Your task to perform on an android device: open app "Gmail" (install if not already installed) Image 0: 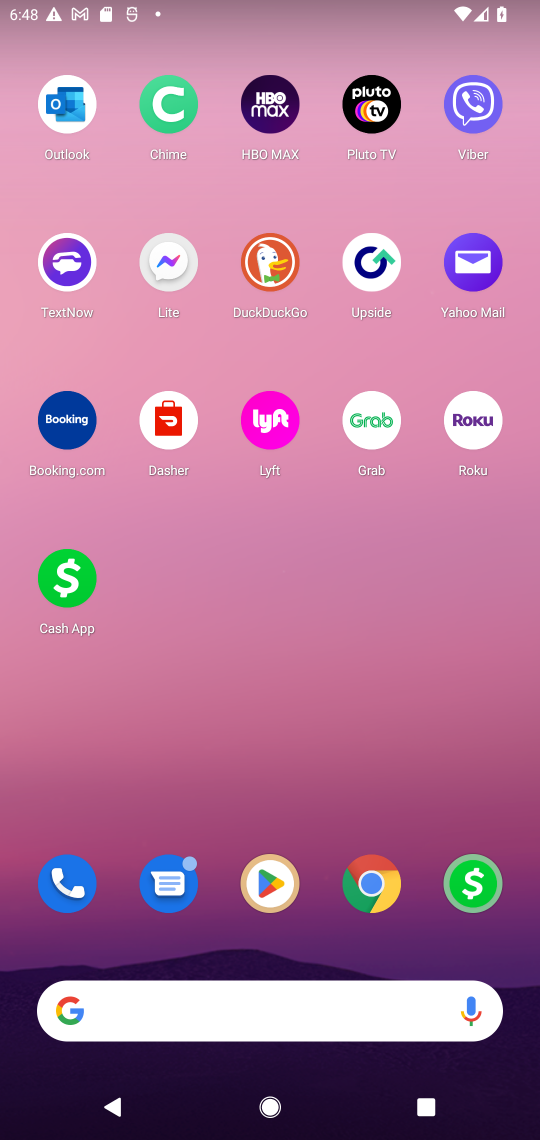
Step 0: click (293, 884)
Your task to perform on an android device: open app "Gmail" (install if not already installed) Image 1: 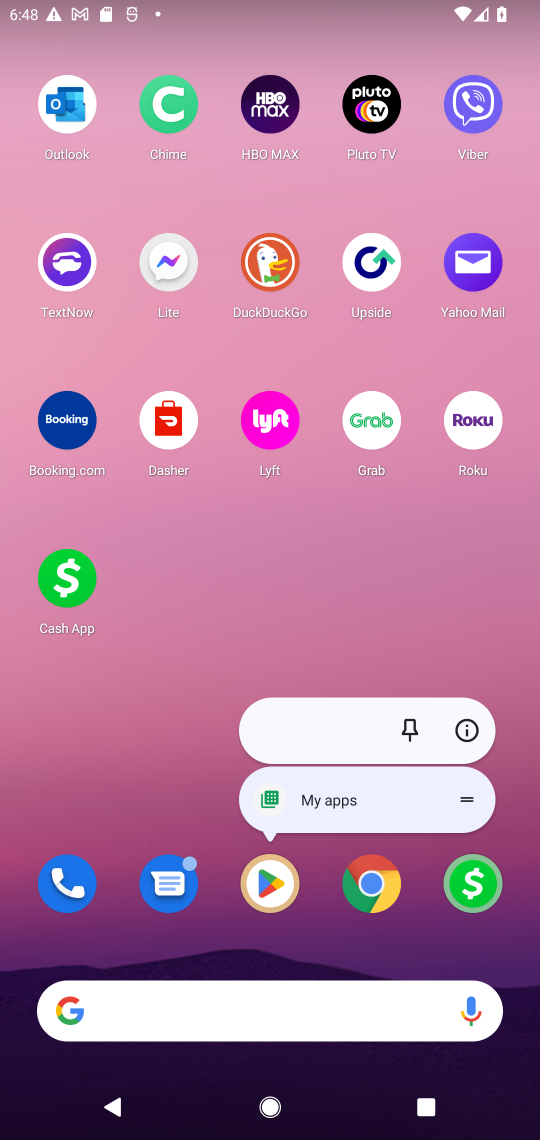
Step 1: click (266, 870)
Your task to perform on an android device: open app "Gmail" (install if not already installed) Image 2: 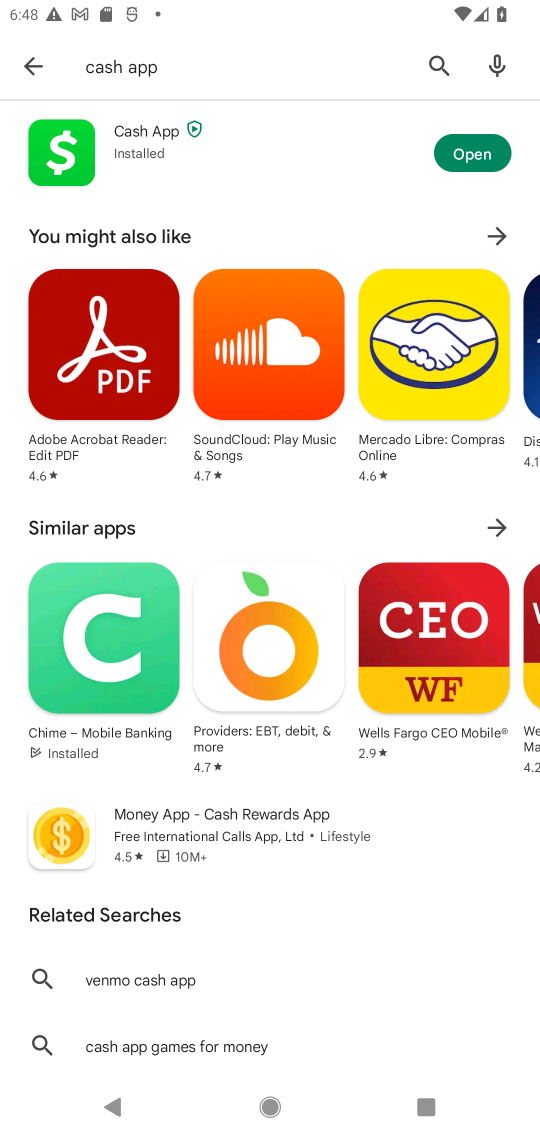
Step 2: click (445, 63)
Your task to perform on an android device: open app "Gmail" (install if not already installed) Image 3: 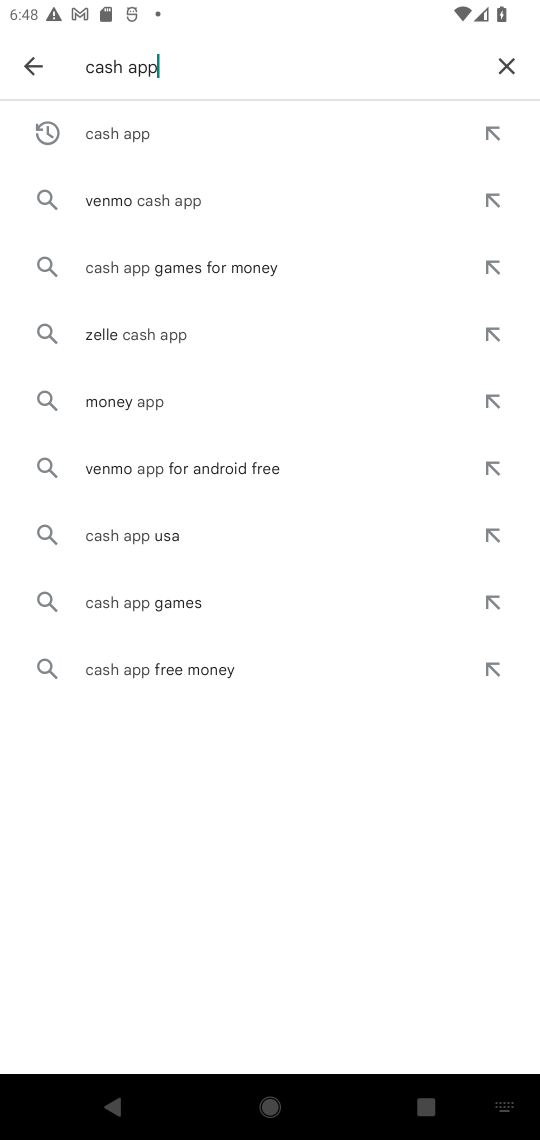
Step 3: click (517, 69)
Your task to perform on an android device: open app "Gmail" (install if not already installed) Image 4: 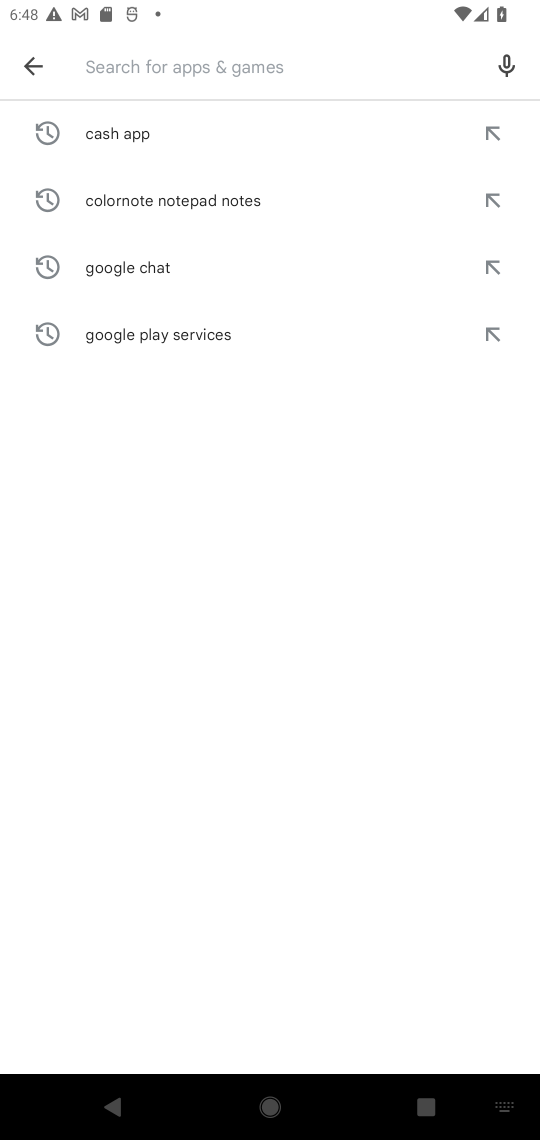
Step 4: type "Gmail"
Your task to perform on an android device: open app "Gmail" (install if not already installed) Image 5: 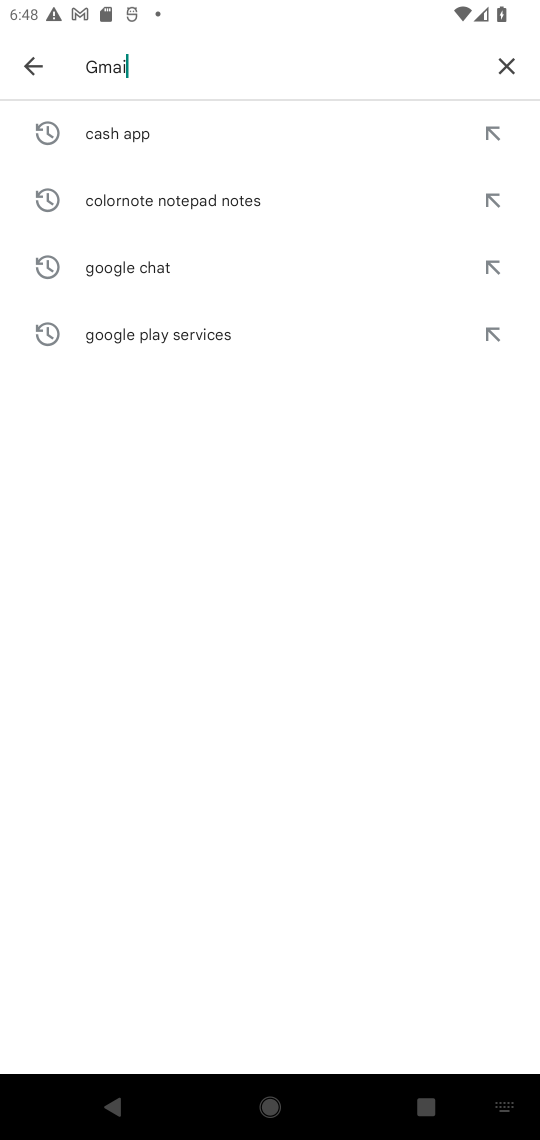
Step 5: type ""
Your task to perform on an android device: open app "Gmail" (install if not already installed) Image 6: 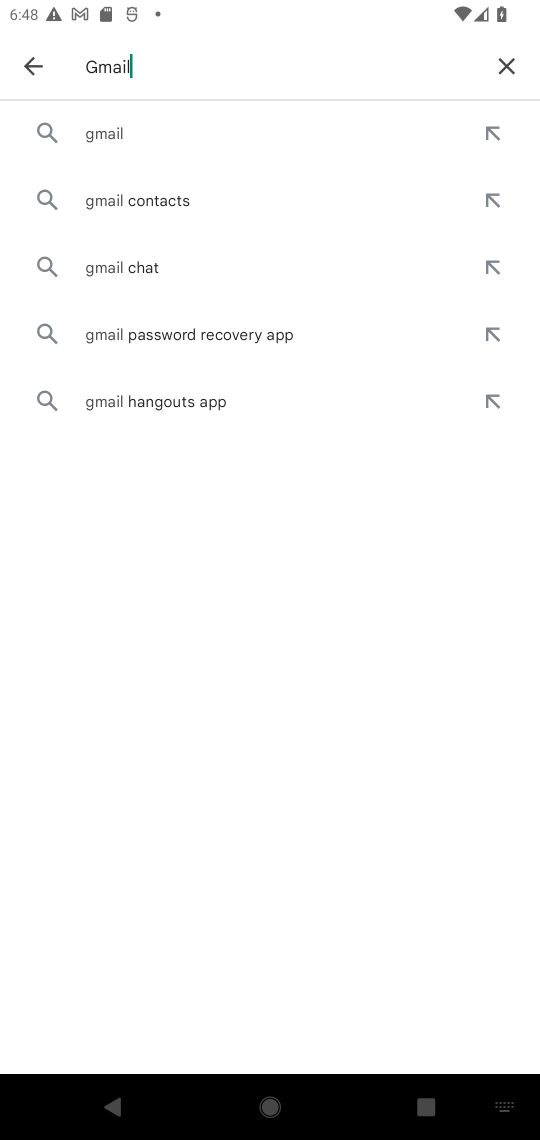
Step 6: click (189, 133)
Your task to perform on an android device: open app "Gmail" (install if not already installed) Image 7: 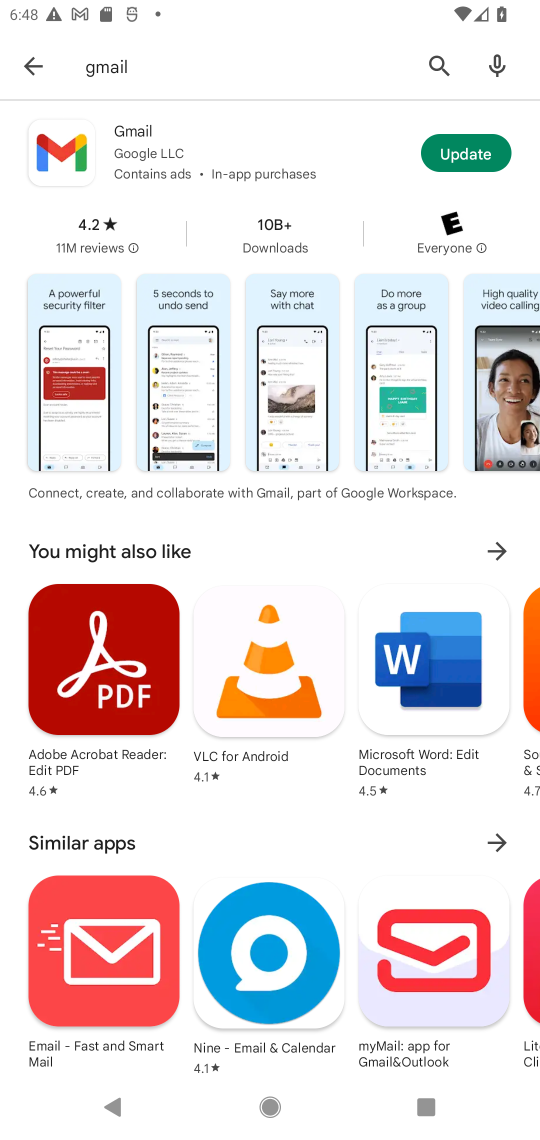
Step 7: click (210, 149)
Your task to perform on an android device: open app "Gmail" (install if not already installed) Image 8: 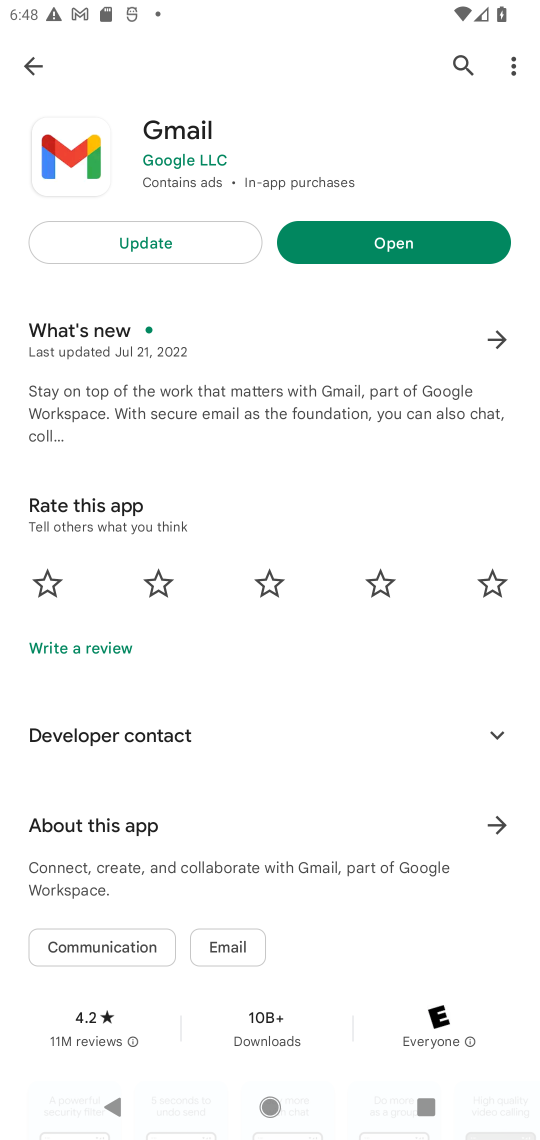
Step 8: click (346, 226)
Your task to perform on an android device: open app "Gmail" (install if not already installed) Image 9: 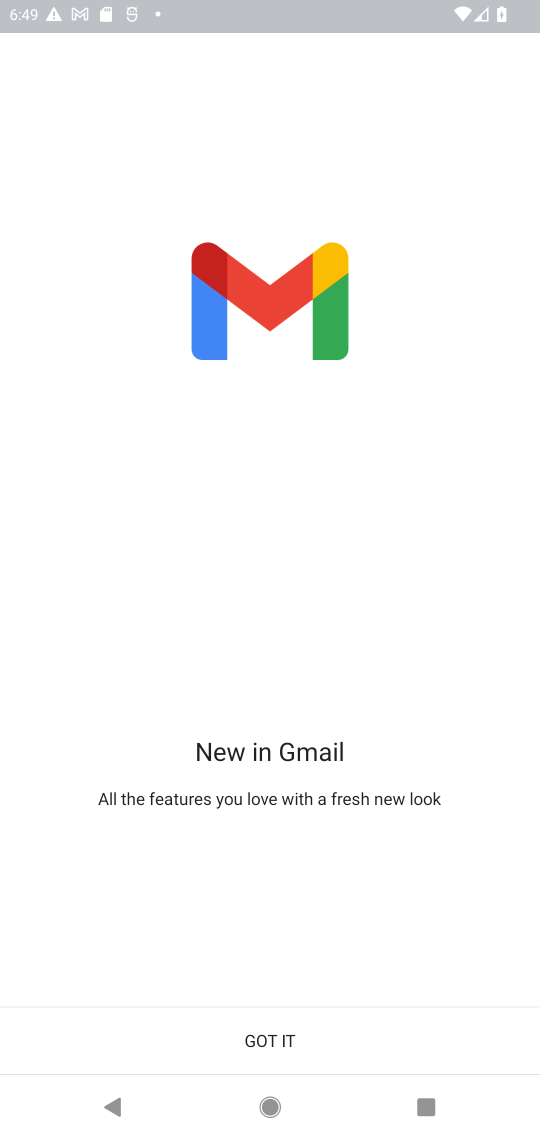
Step 9: task complete